Your task to perform on an android device: Open calendar and show me the second week of next month Image 0: 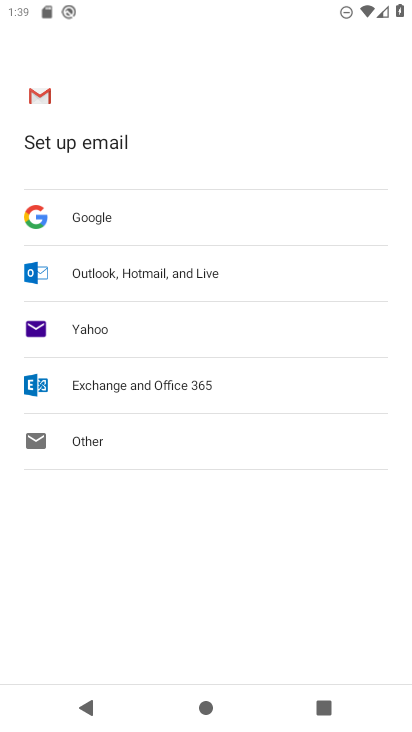
Step 0: press home button
Your task to perform on an android device: Open calendar and show me the second week of next month Image 1: 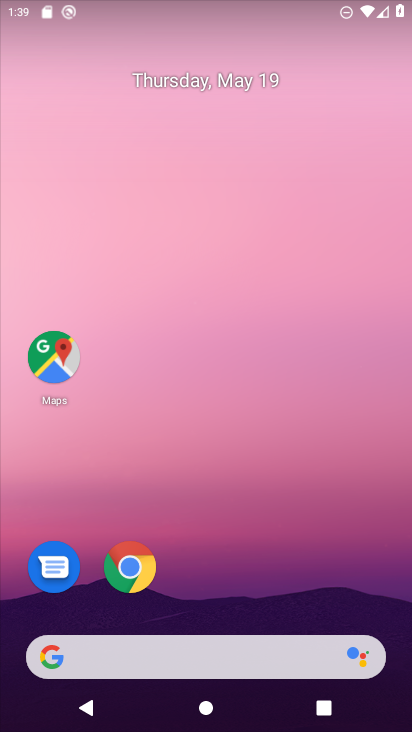
Step 1: drag from (221, 444) to (277, 113)
Your task to perform on an android device: Open calendar and show me the second week of next month Image 2: 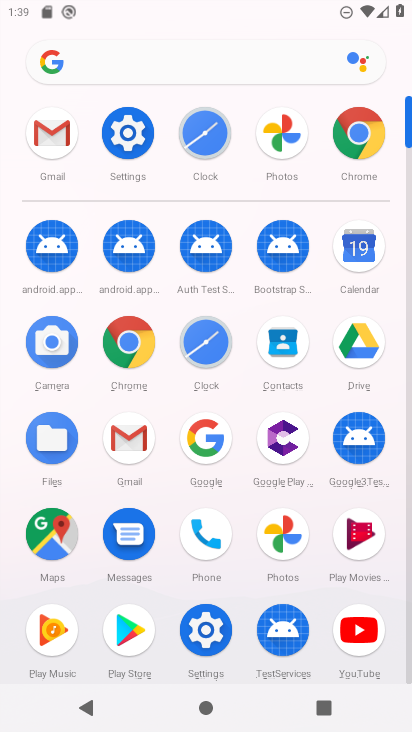
Step 2: click (355, 273)
Your task to perform on an android device: Open calendar and show me the second week of next month Image 3: 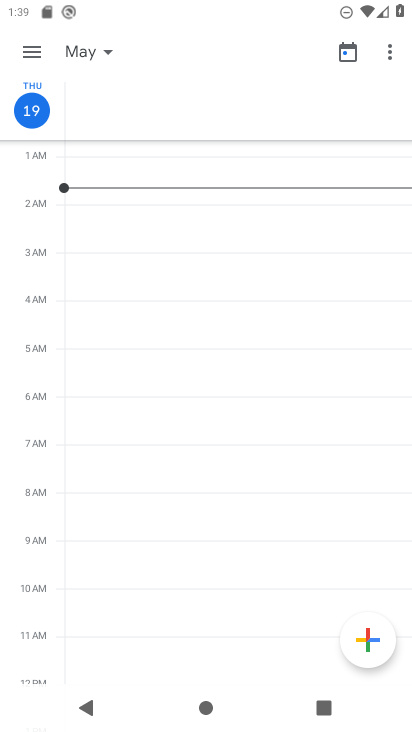
Step 3: click (67, 48)
Your task to perform on an android device: Open calendar and show me the second week of next month Image 4: 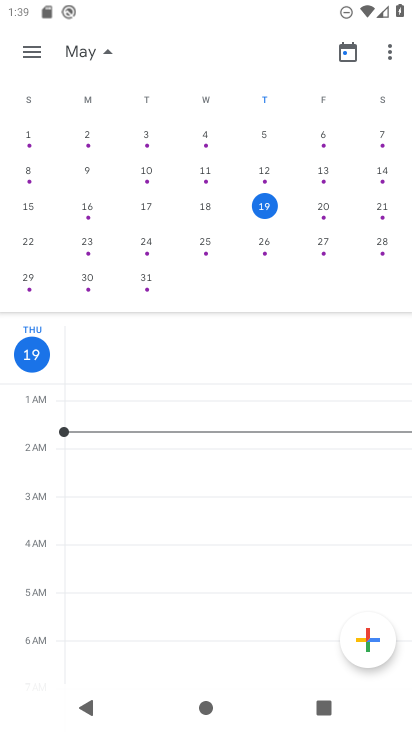
Step 4: task complete